Your task to perform on an android device: Open Android settings Image 0: 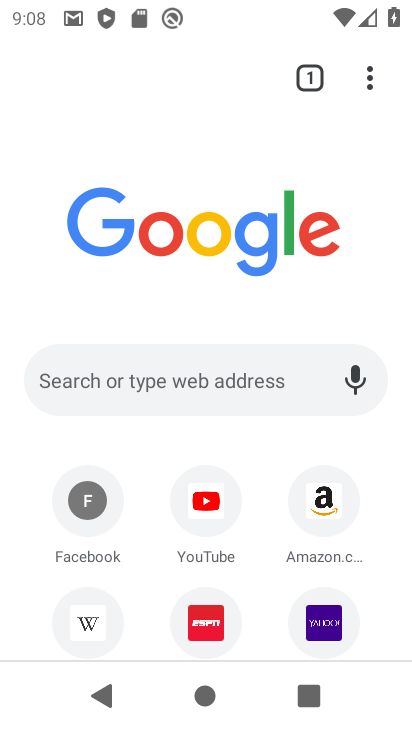
Step 0: press home button
Your task to perform on an android device: Open Android settings Image 1: 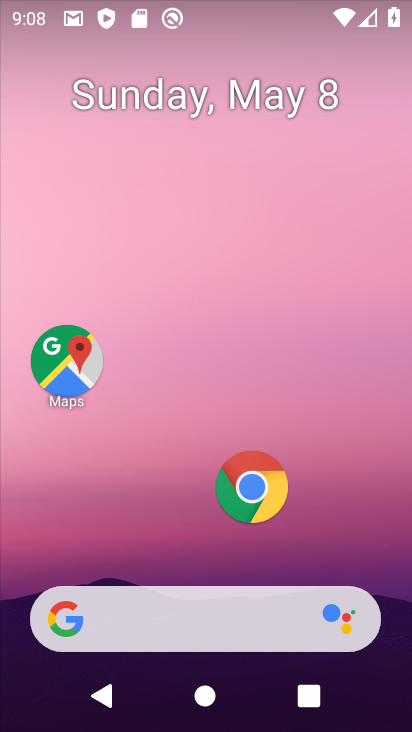
Step 1: drag from (155, 63) to (161, 0)
Your task to perform on an android device: Open Android settings Image 2: 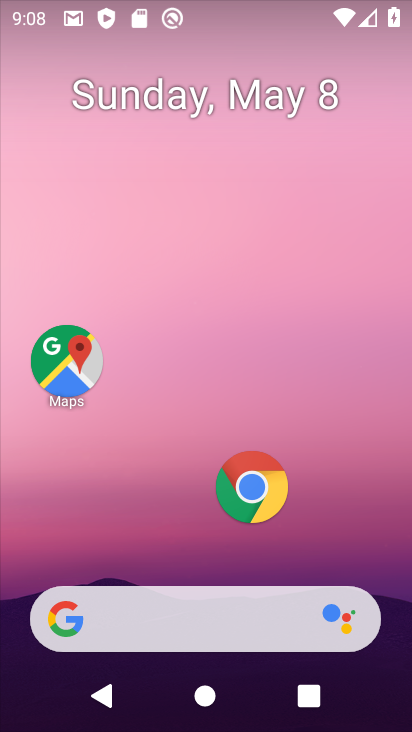
Step 2: drag from (163, 509) to (299, 1)
Your task to perform on an android device: Open Android settings Image 3: 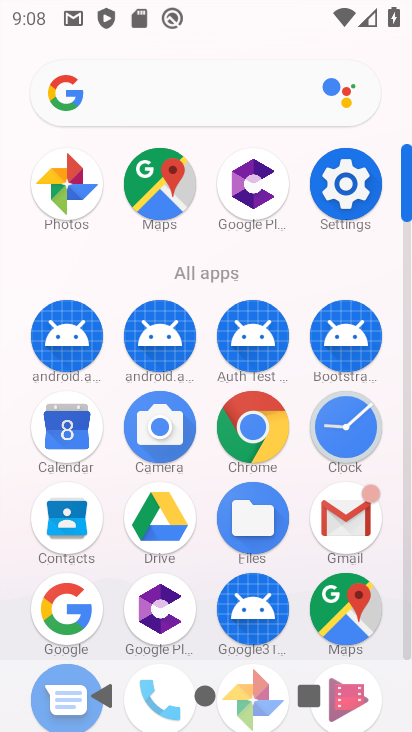
Step 3: click (343, 171)
Your task to perform on an android device: Open Android settings Image 4: 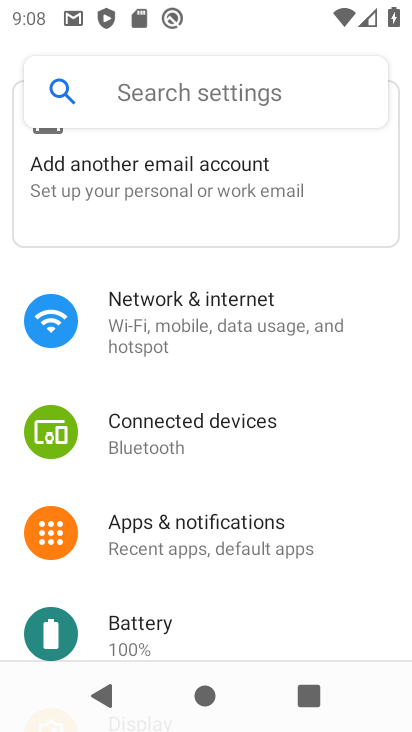
Step 4: drag from (257, 604) to (291, 84)
Your task to perform on an android device: Open Android settings Image 5: 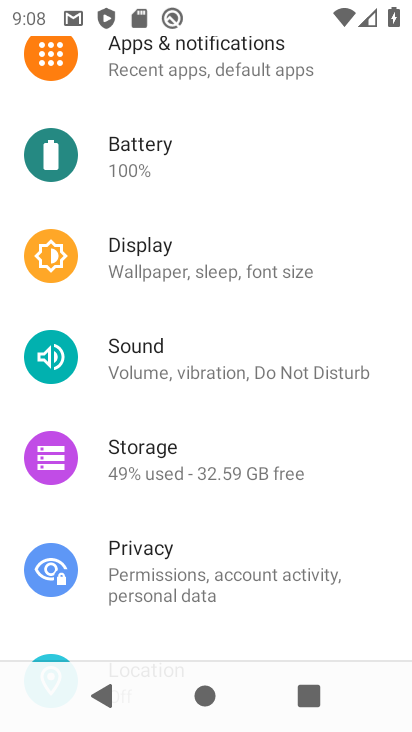
Step 5: drag from (206, 521) to (259, 147)
Your task to perform on an android device: Open Android settings Image 6: 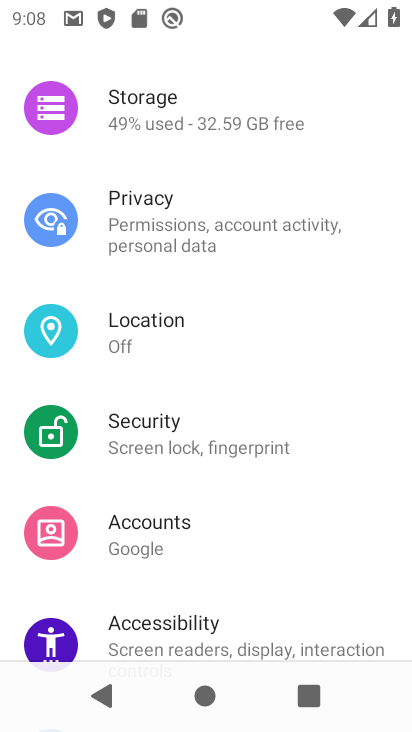
Step 6: drag from (226, 568) to (300, 198)
Your task to perform on an android device: Open Android settings Image 7: 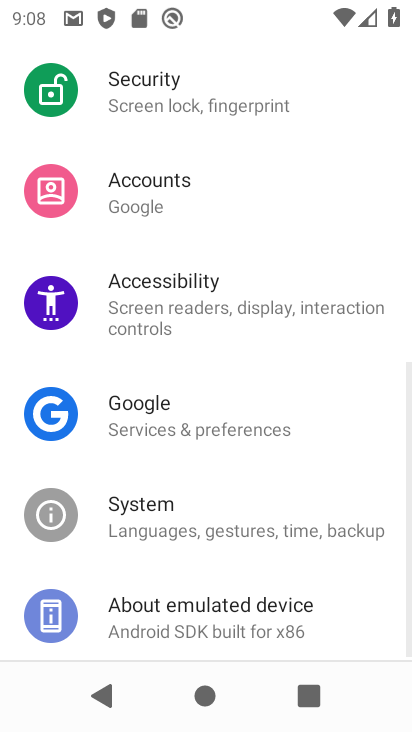
Step 7: drag from (194, 545) to (241, 307)
Your task to perform on an android device: Open Android settings Image 8: 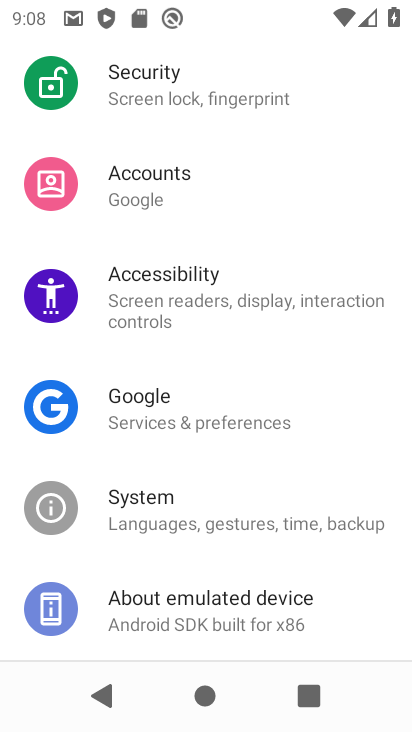
Step 8: click (181, 593)
Your task to perform on an android device: Open Android settings Image 9: 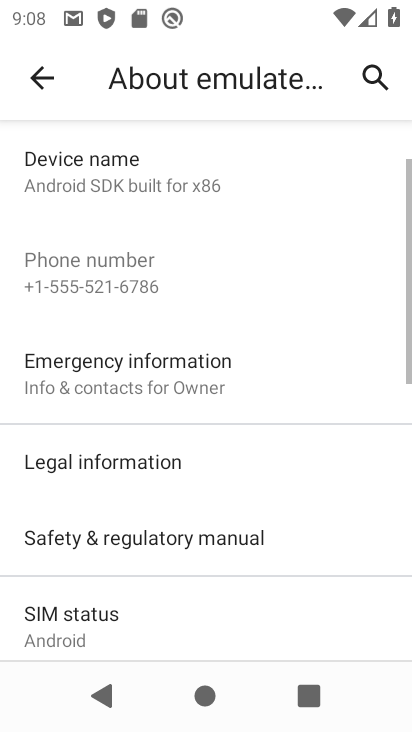
Step 9: task complete